Your task to perform on an android device: uninstall "YouTube Kids" Image 0: 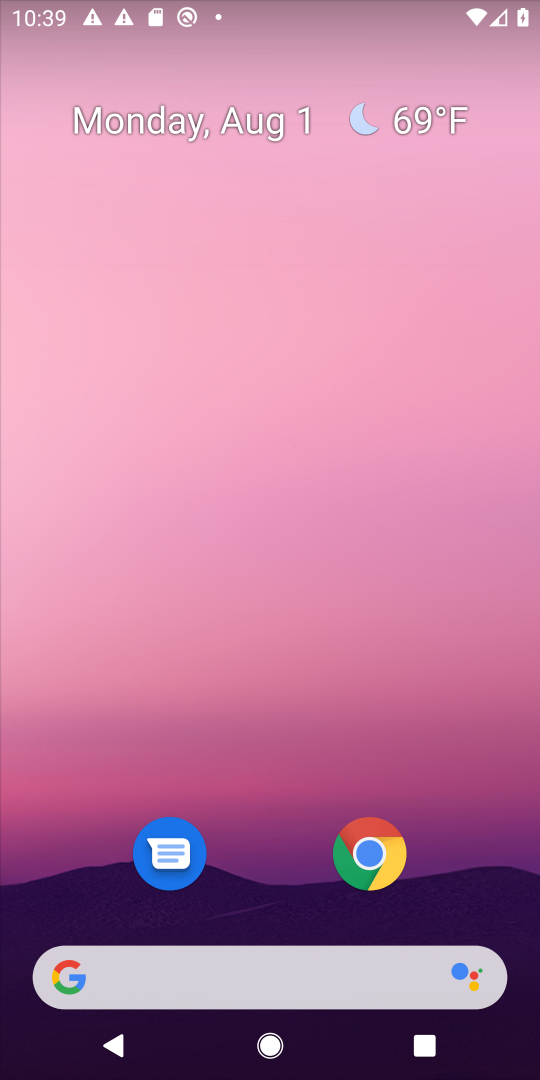
Step 0: drag from (241, 894) to (259, 208)
Your task to perform on an android device: uninstall "YouTube Kids" Image 1: 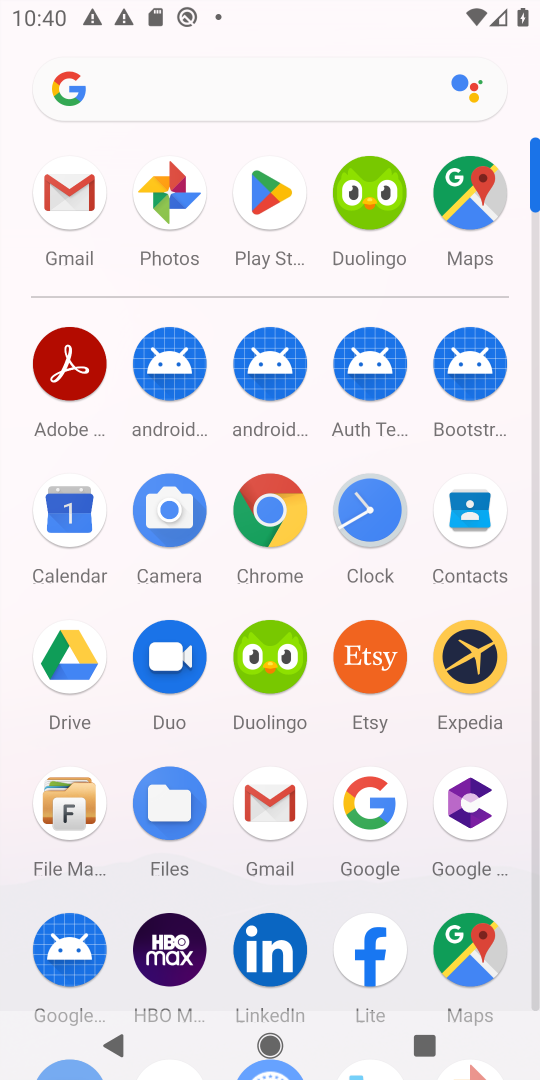
Step 1: click (280, 197)
Your task to perform on an android device: uninstall "YouTube Kids" Image 2: 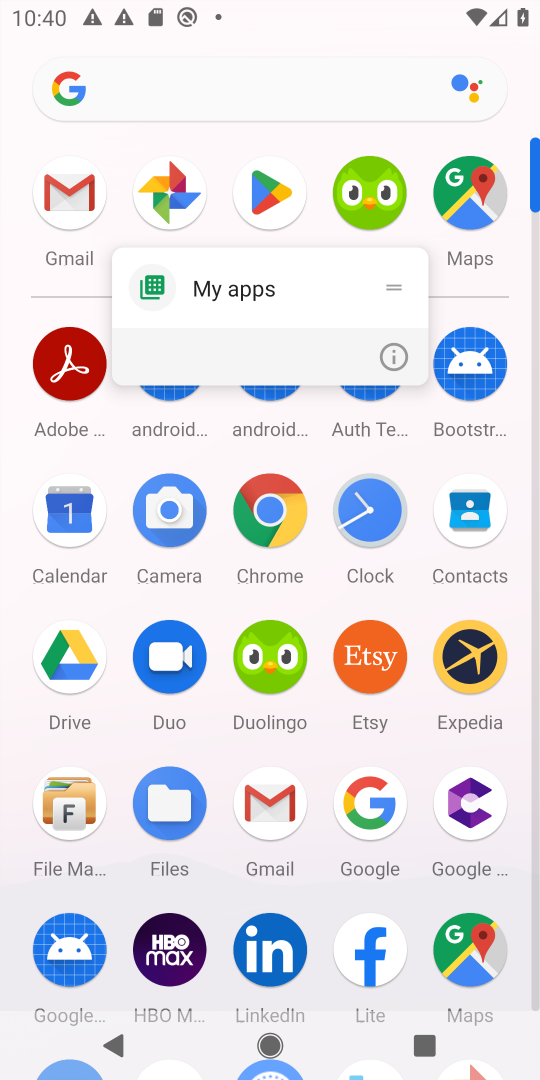
Step 2: click (393, 367)
Your task to perform on an android device: uninstall "YouTube Kids" Image 3: 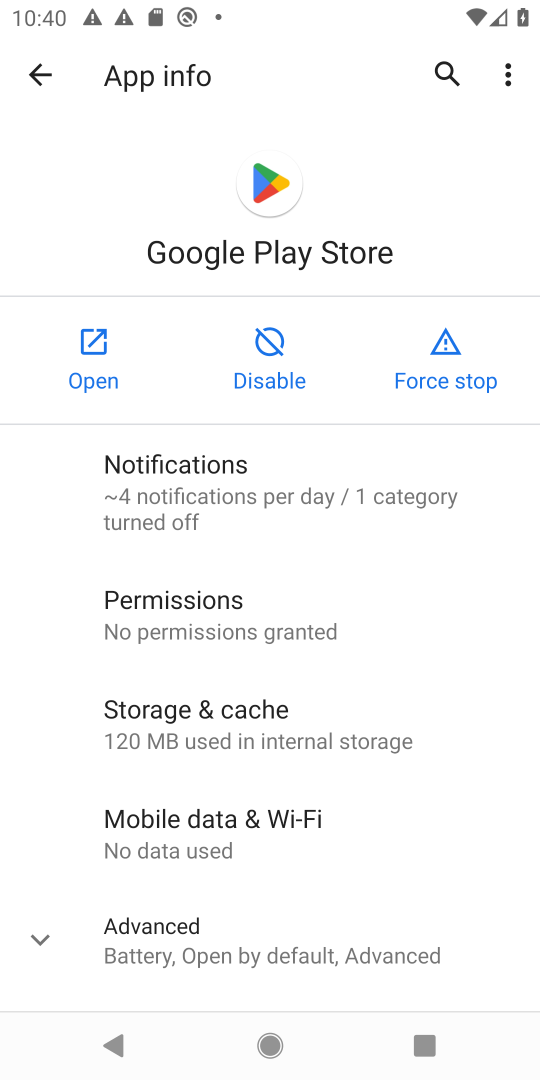
Step 3: click (95, 331)
Your task to perform on an android device: uninstall "YouTube Kids" Image 4: 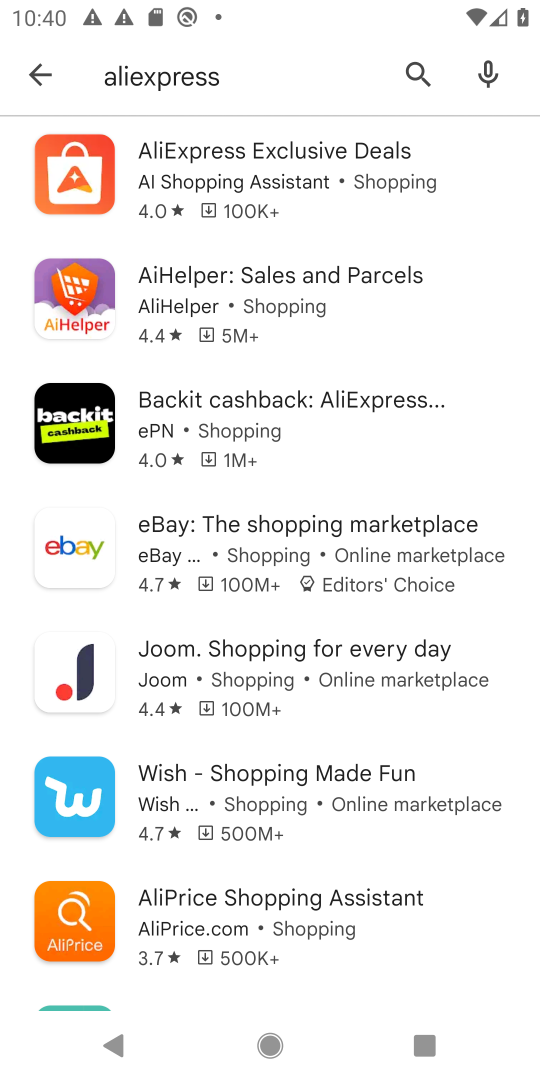
Step 4: click (419, 87)
Your task to perform on an android device: uninstall "YouTube Kids" Image 5: 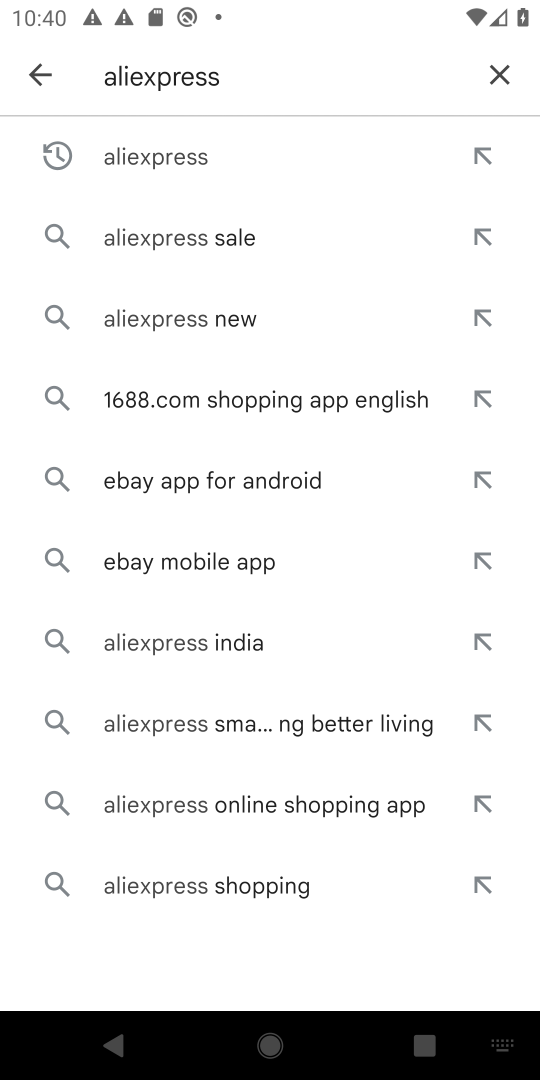
Step 5: click (503, 67)
Your task to perform on an android device: uninstall "YouTube Kids" Image 6: 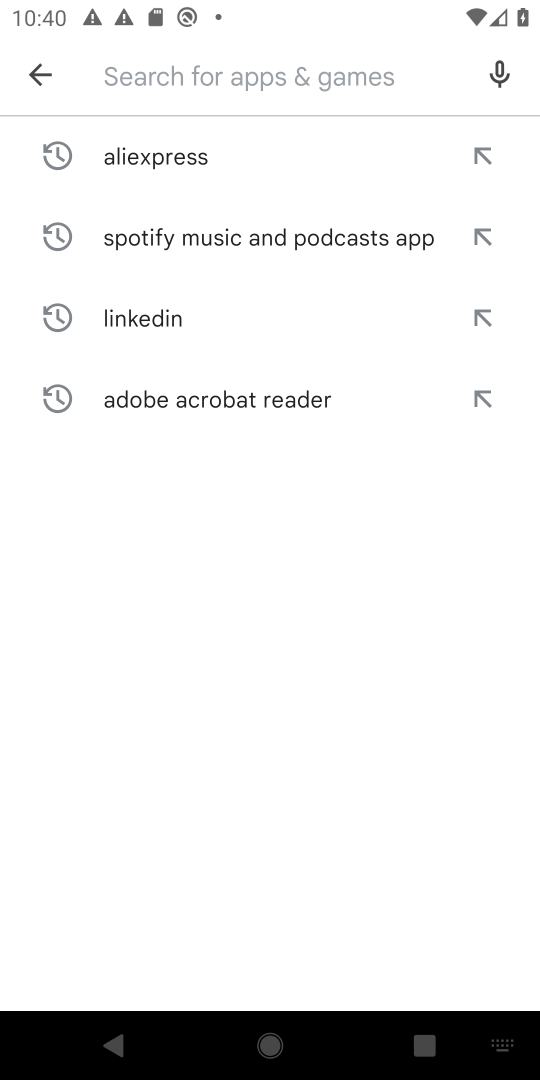
Step 6: type "YouTube Kids"
Your task to perform on an android device: uninstall "YouTube Kids" Image 7: 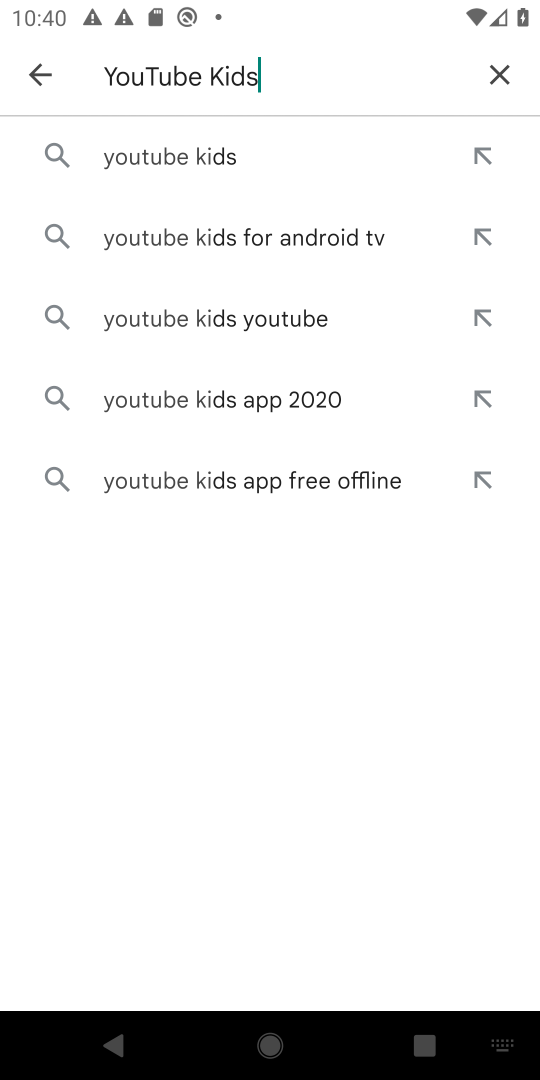
Step 7: type ""
Your task to perform on an android device: uninstall "YouTube Kids" Image 8: 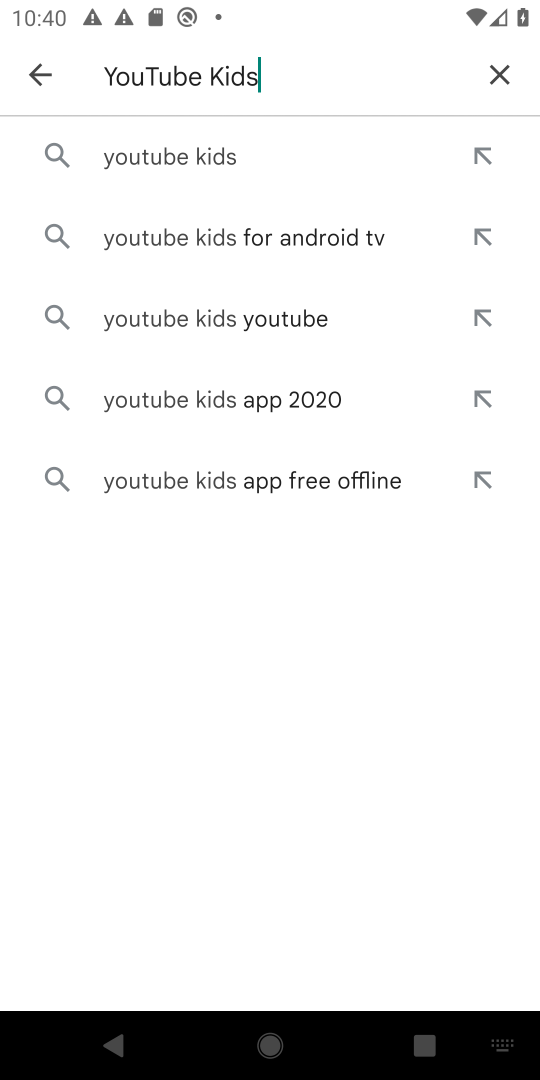
Step 8: click (257, 155)
Your task to perform on an android device: uninstall "YouTube Kids" Image 9: 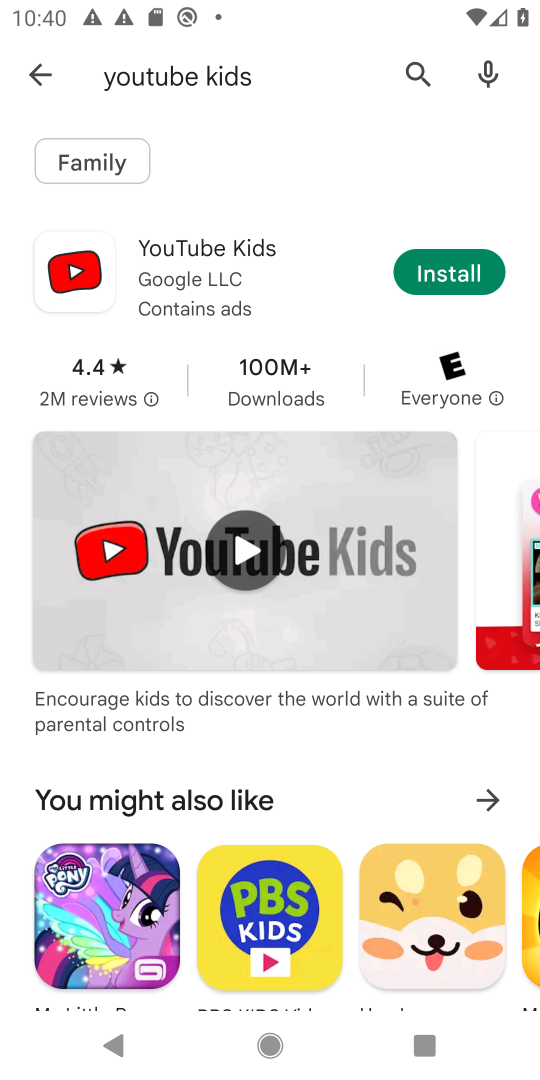
Step 9: click (194, 257)
Your task to perform on an android device: uninstall "YouTube Kids" Image 10: 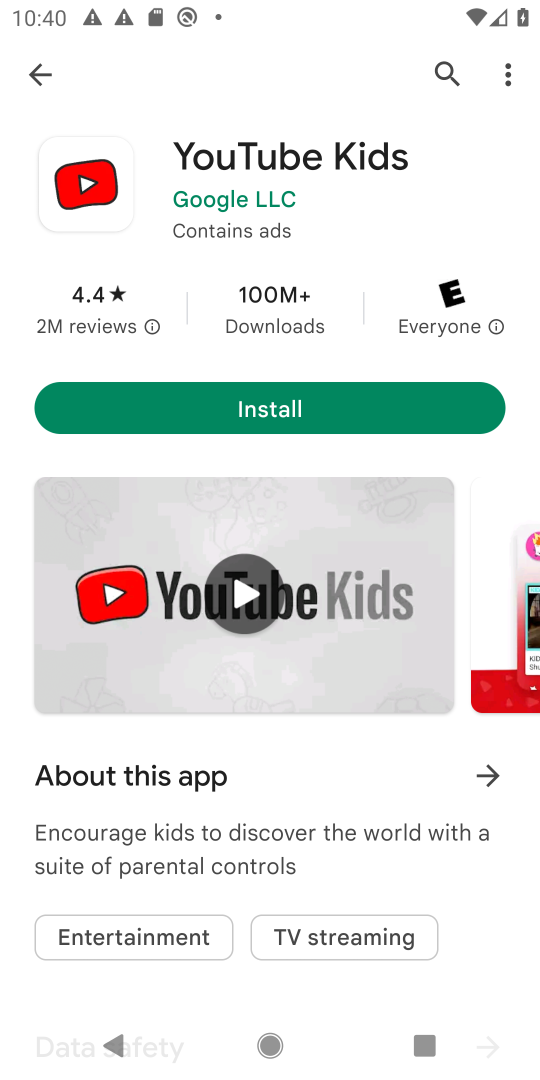
Step 10: task complete